Your task to perform on an android device: Open settings on Google Maps Image 0: 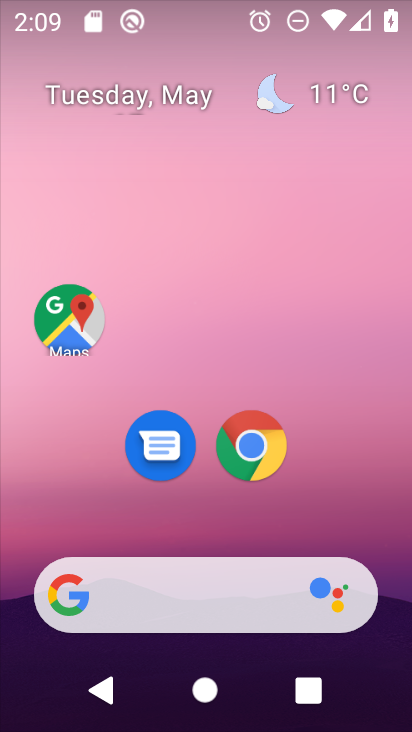
Step 0: drag from (350, 498) to (284, 410)
Your task to perform on an android device: Open settings on Google Maps Image 1: 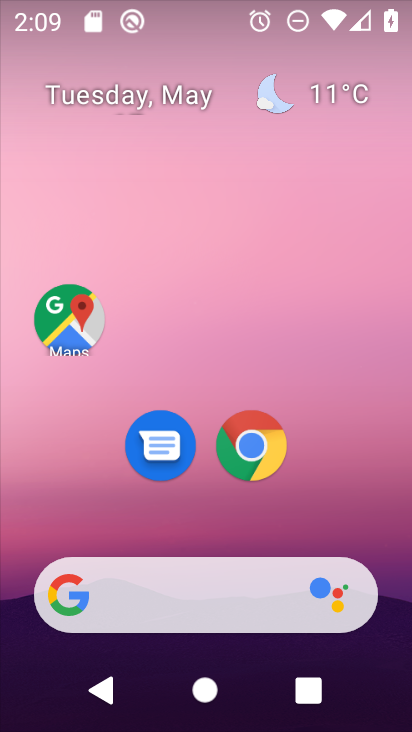
Step 1: click (43, 306)
Your task to perform on an android device: Open settings on Google Maps Image 2: 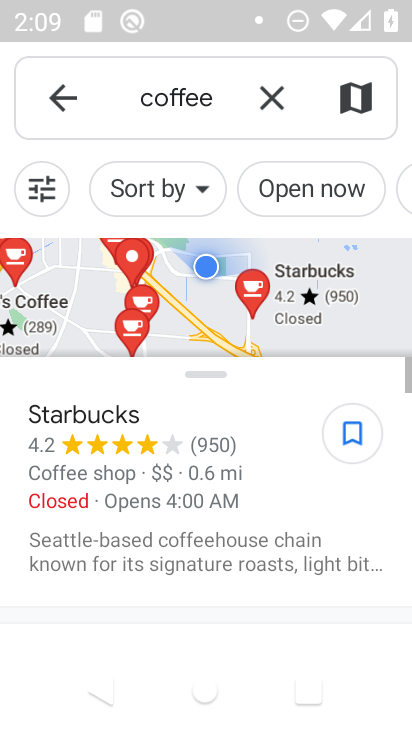
Step 2: click (56, 101)
Your task to perform on an android device: Open settings on Google Maps Image 3: 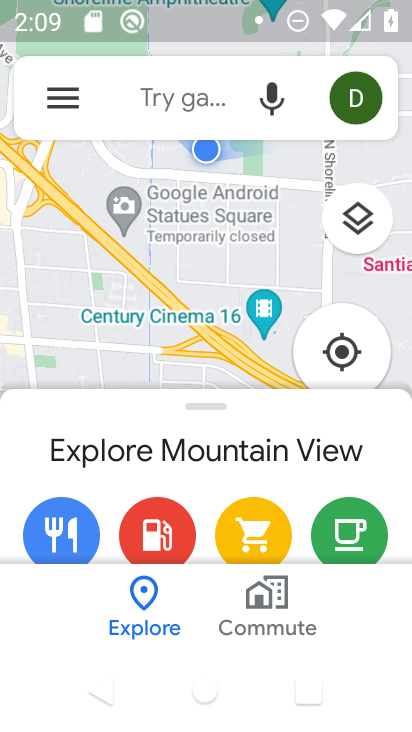
Step 3: click (56, 101)
Your task to perform on an android device: Open settings on Google Maps Image 4: 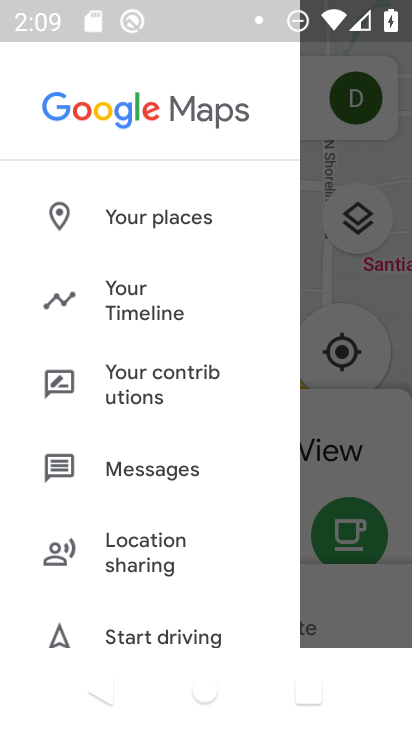
Step 4: drag from (197, 462) to (147, 248)
Your task to perform on an android device: Open settings on Google Maps Image 5: 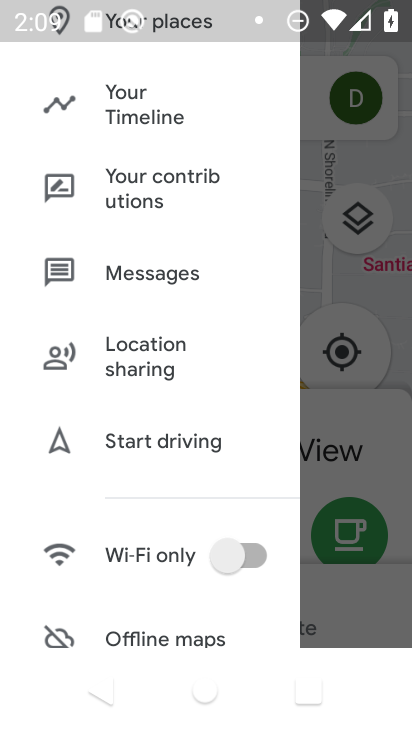
Step 5: drag from (162, 529) to (110, 258)
Your task to perform on an android device: Open settings on Google Maps Image 6: 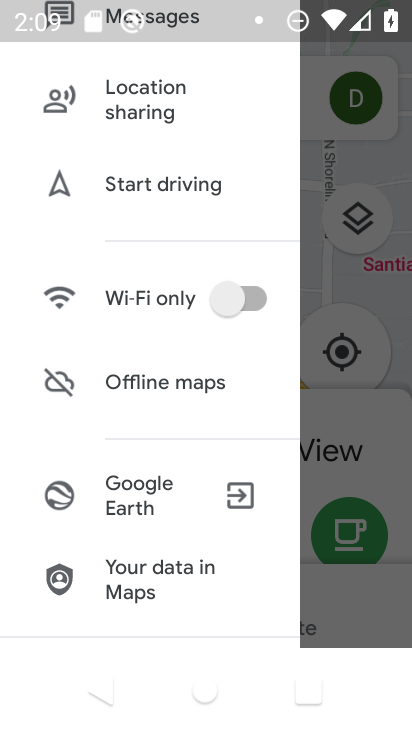
Step 6: drag from (148, 483) to (119, 102)
Your task to perform on an android device: Open settings on Google Maps Image 7: 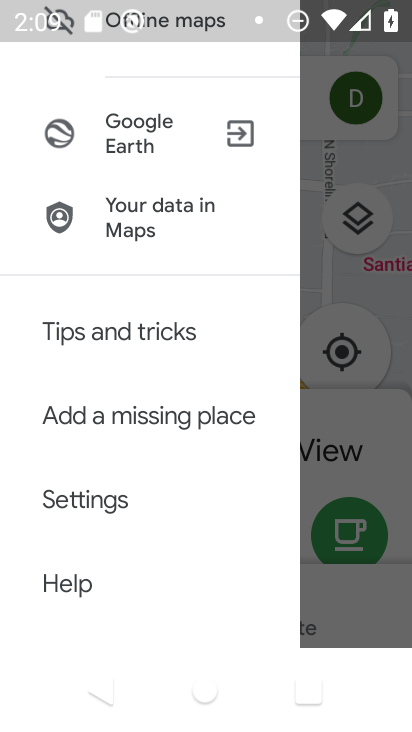
Step 7: click (122, 509)
Your task to perform on an android device: Open settings on Google Maps Image 8: 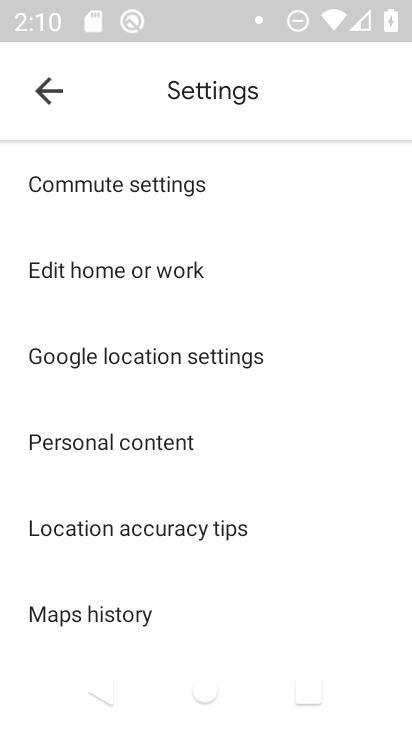
Step 8: task complete